Your task to perform on an android device: Is it going to rain this weekend? Image 0: 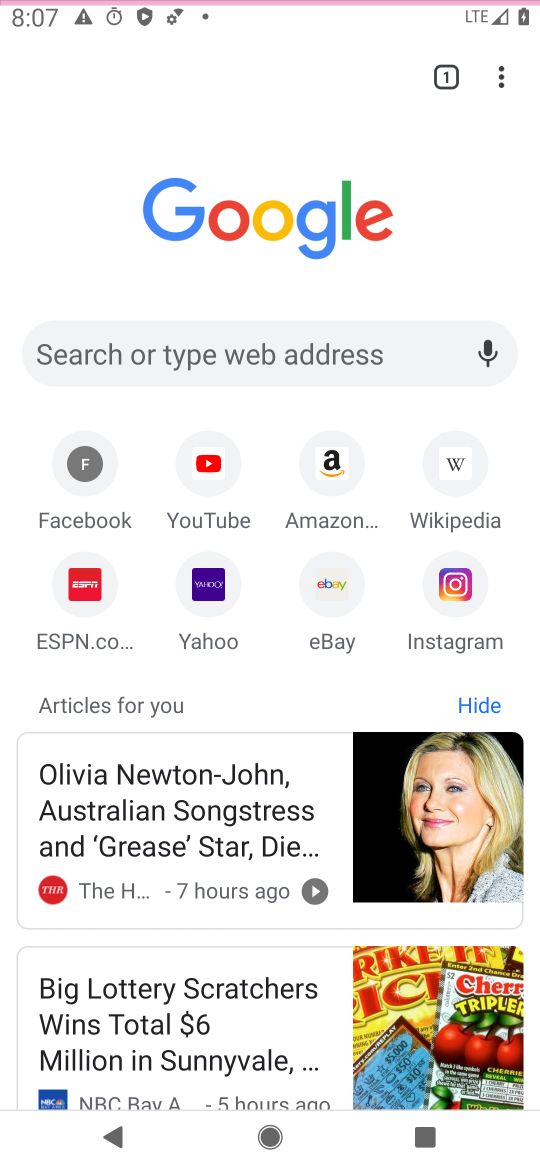
Step 0: click (290, 626)
Your task to perform on an android device: Is it going to rain this weekend? Image 1: 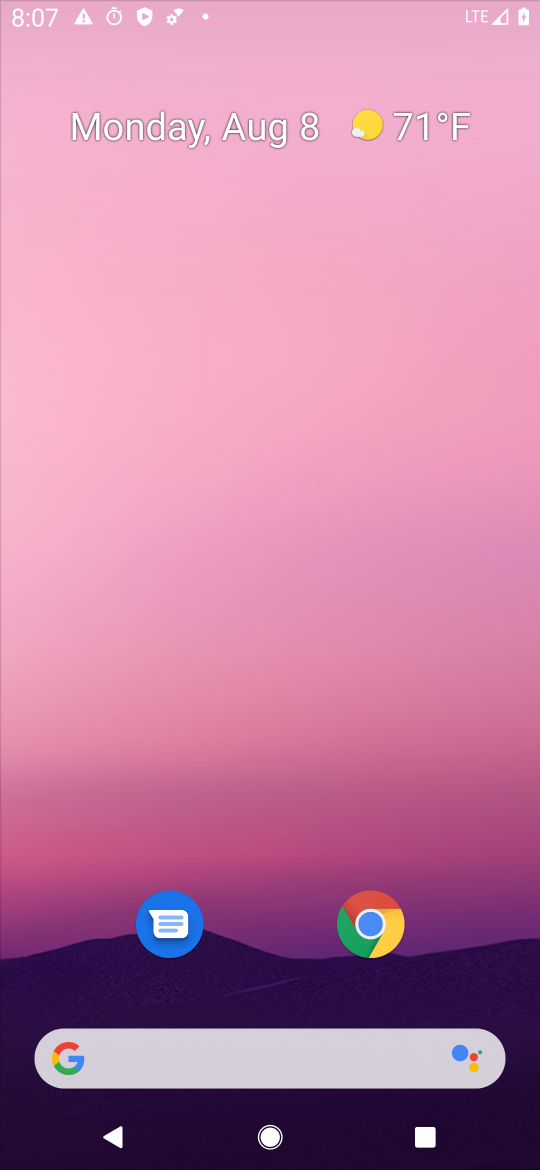
Step 1: click (282, 792)
Your task to perform on an android device: Is it going to rain this weekend? Image 2: 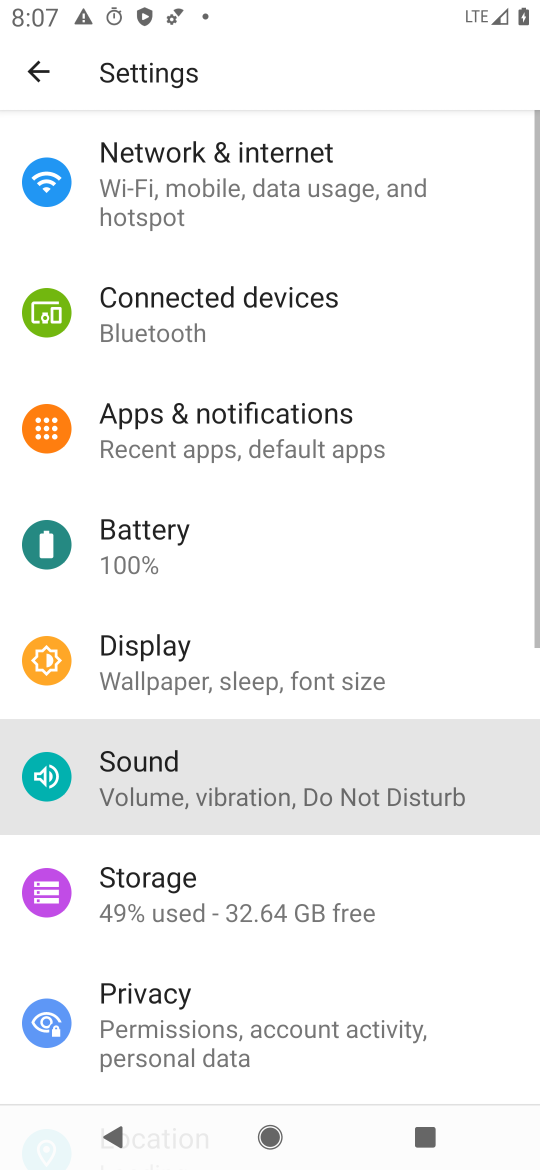
Step 2: drag from (297, 818) to (339, 757)
Your task to perform on an android device: Is it going to rain this weekend? Image 3: 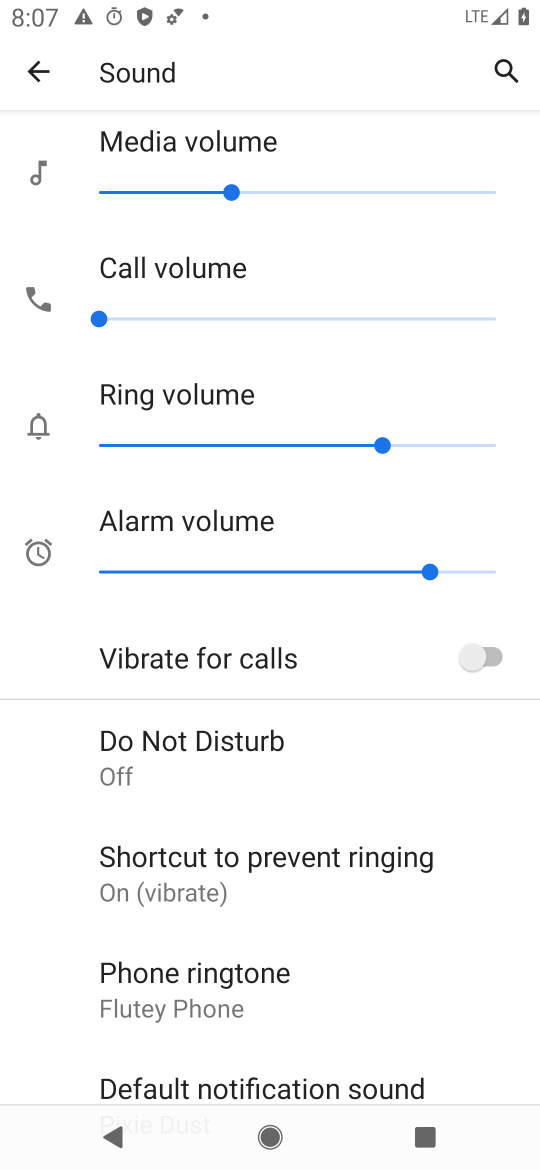
Step 3: press home button
Your task to perform on an android device: Is it going to rain this weekend? Image 4: 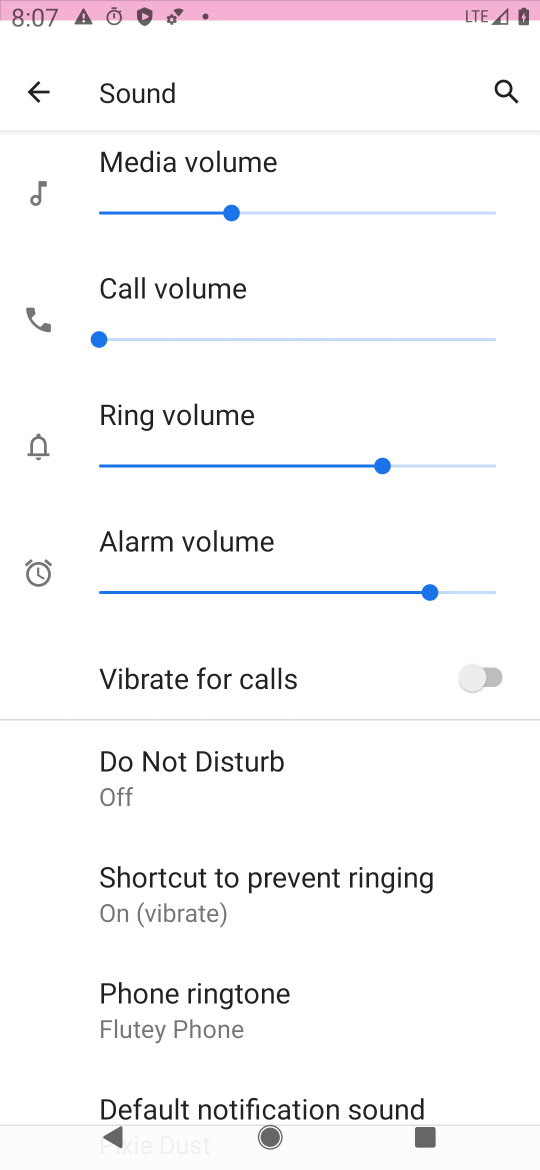
Step 4: drag from (240, 959) to (423, 213)
Your task to perform on an android device: Is it going to rain this weekend? Image 5: 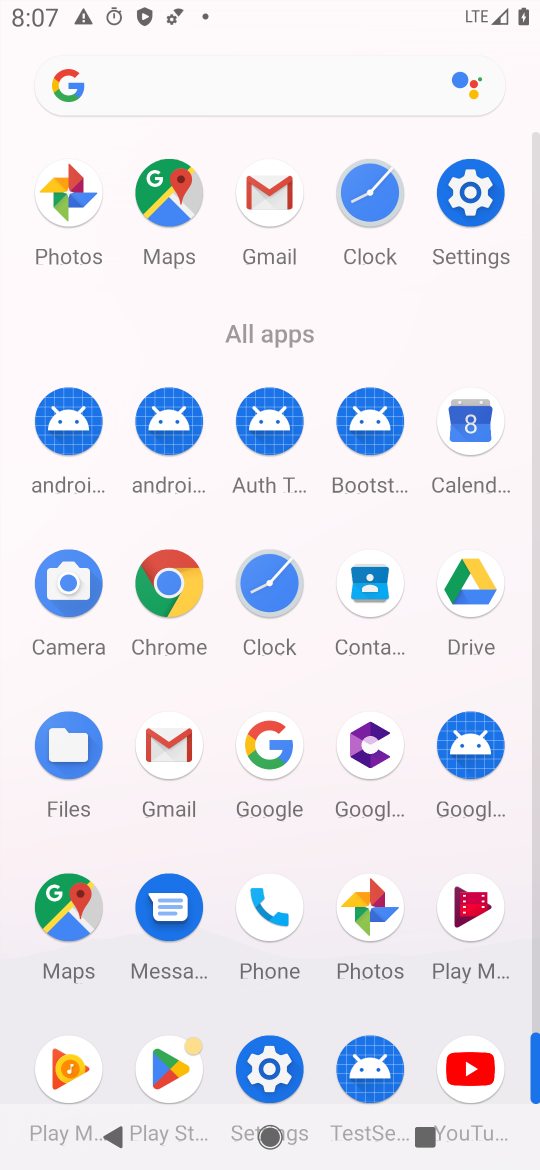
Step 5: click (127, 84)
Your task to perform on an android device: Is it going to rain this weekend? Image 6: 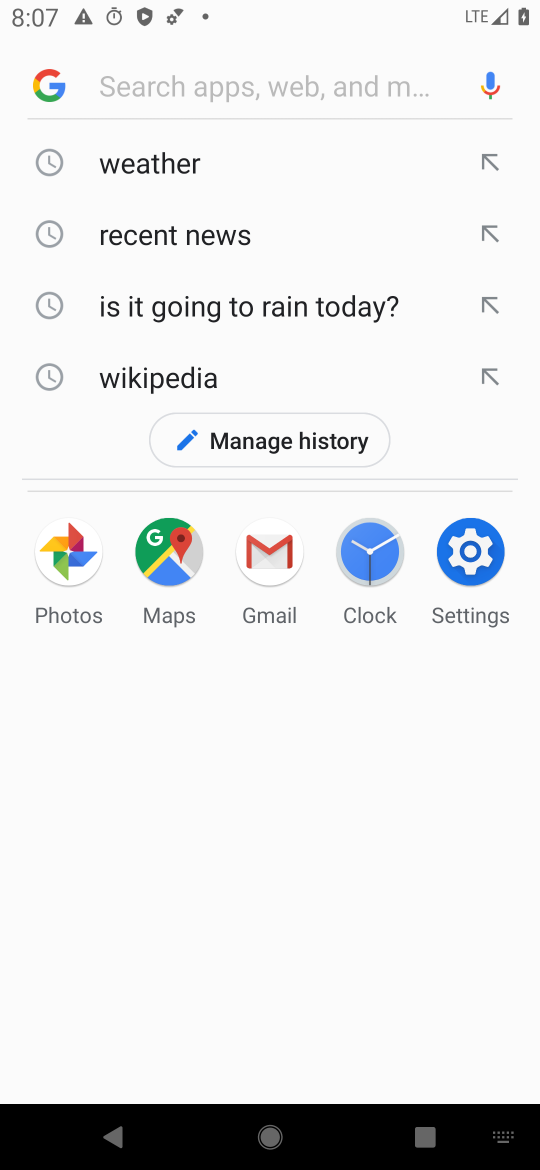
Step 6: type "Is it going to rain this weekend?"
Your task to perform on an android device: Is it going to rain this weekend? Image 7: 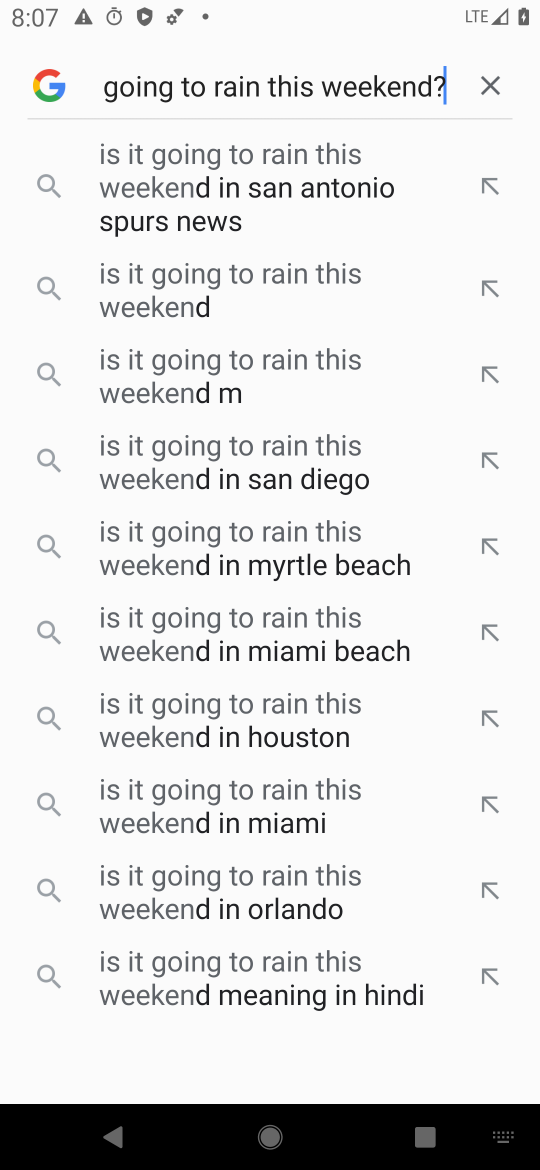
Step 7: type ""
Your task to perform on an android device: Is it going to rain this weekend? Image 8: 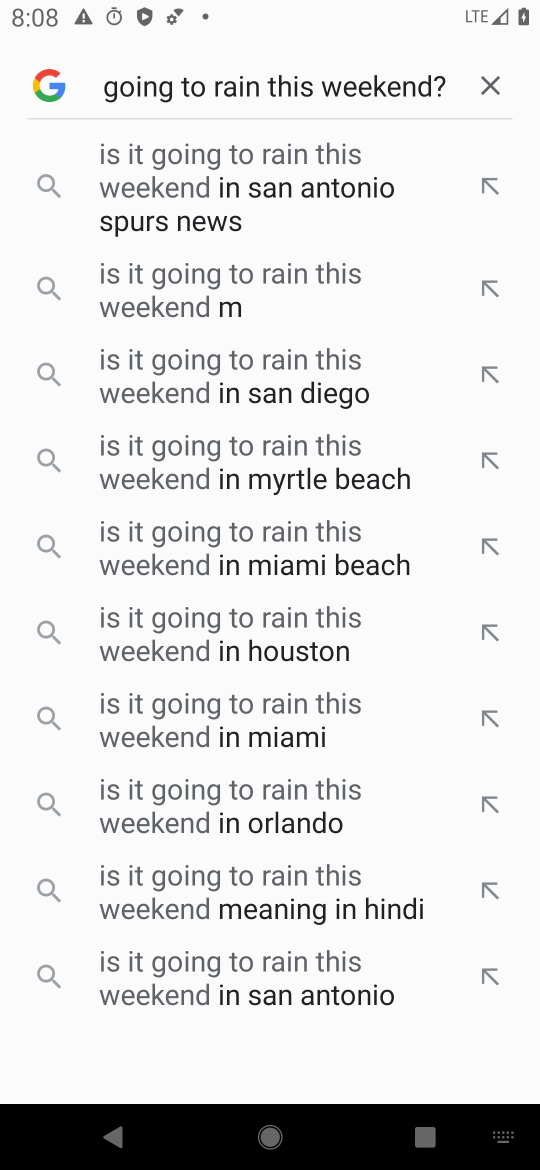
Step 8: click (194, 173)
Your task to perform on an android device: Is it going to rain this weekend? Image 9: 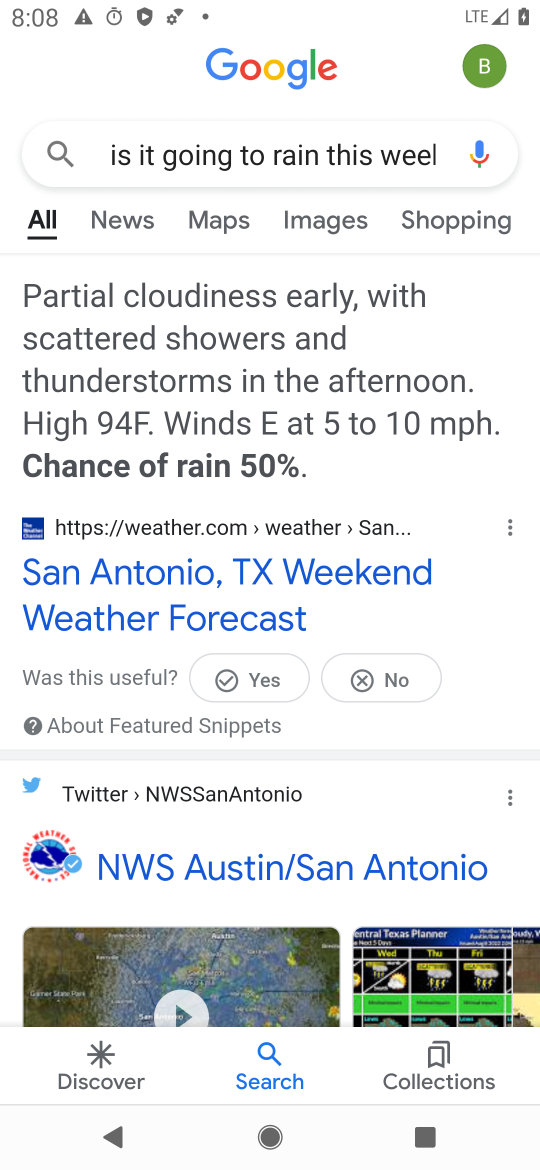
Step 9: task complete